Your task to perform on an android device: What time is it in Sydney? Image 0: 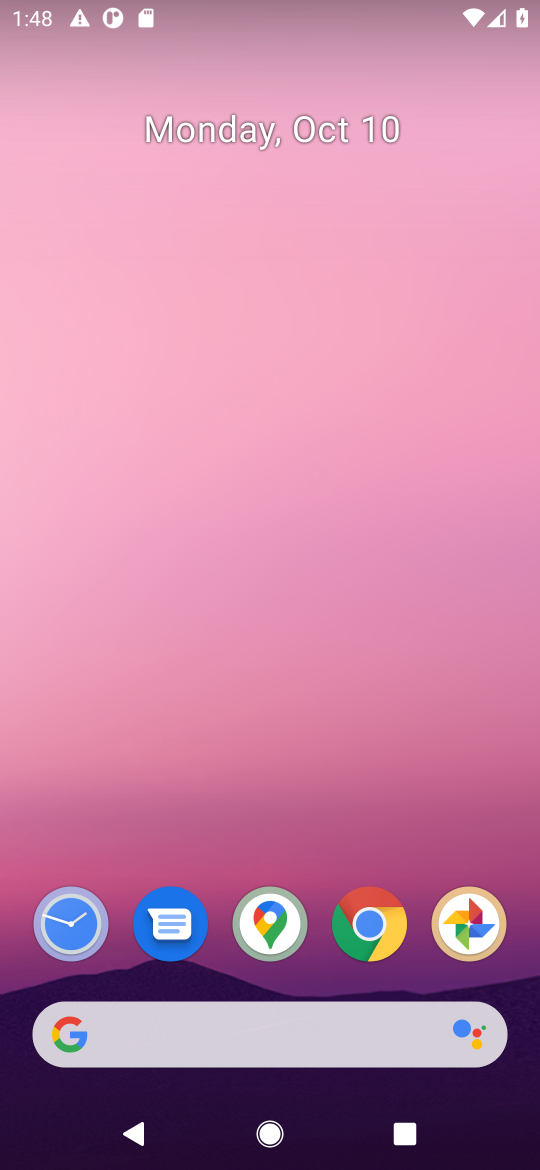
Step 0: drag from (302, 819) to (411, 10)
Your task to perform on an android device: What time is it in Sydney? Image 1: 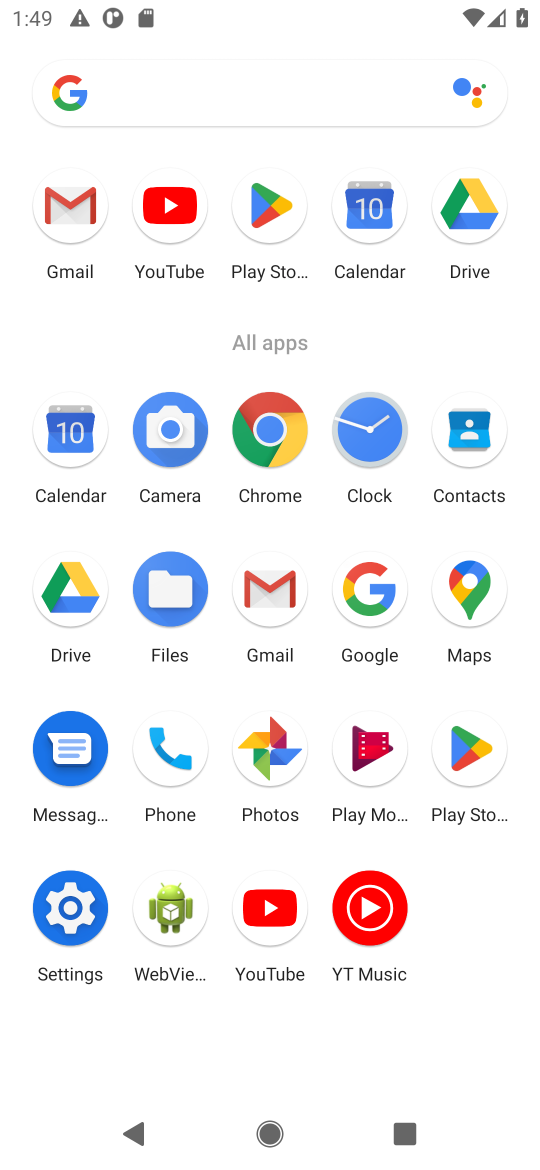
Step 1: click (392, 428)
Your task to perform on an android device: What time is it in Sydney? Image 2: 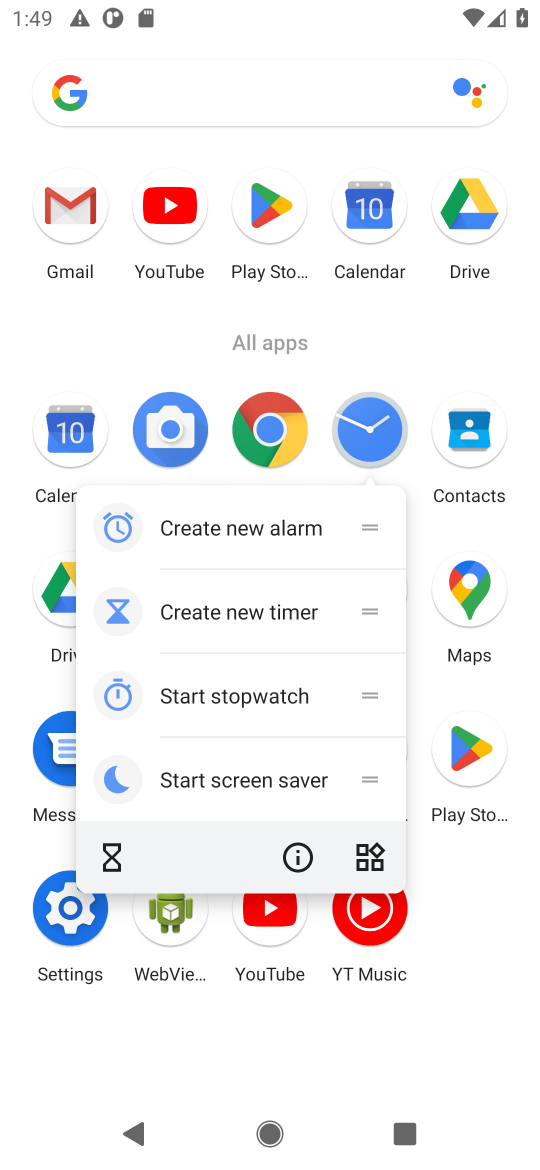
Step 2: click (272, 438)
Your task to perform on an android device: What time is it in Sydney? Image 3: 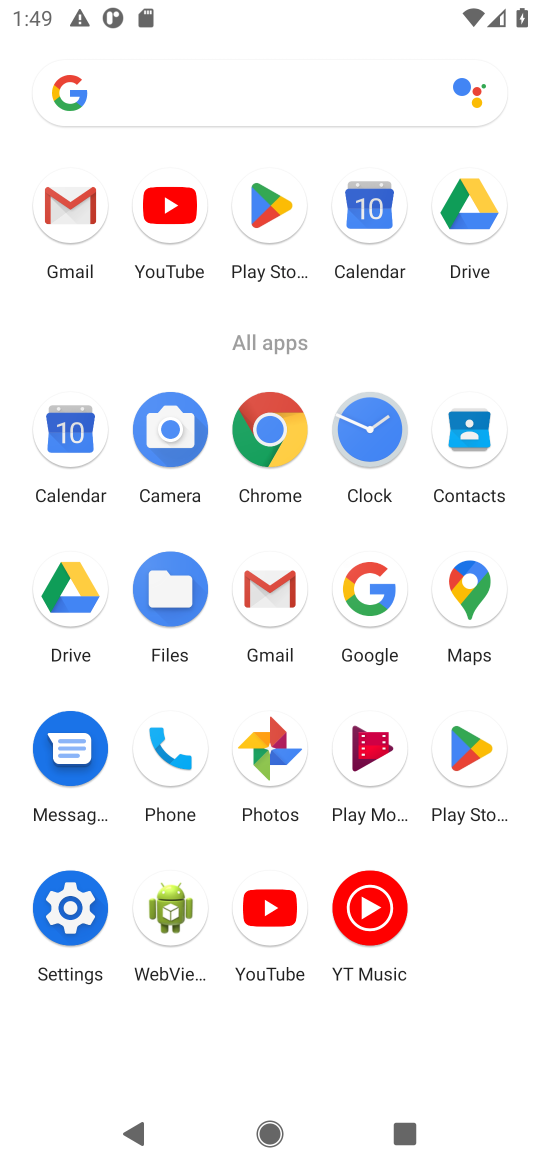
Step 3: click (272, 438)
Your task to perform on an android device: What time is it in Sydney? Image 4: 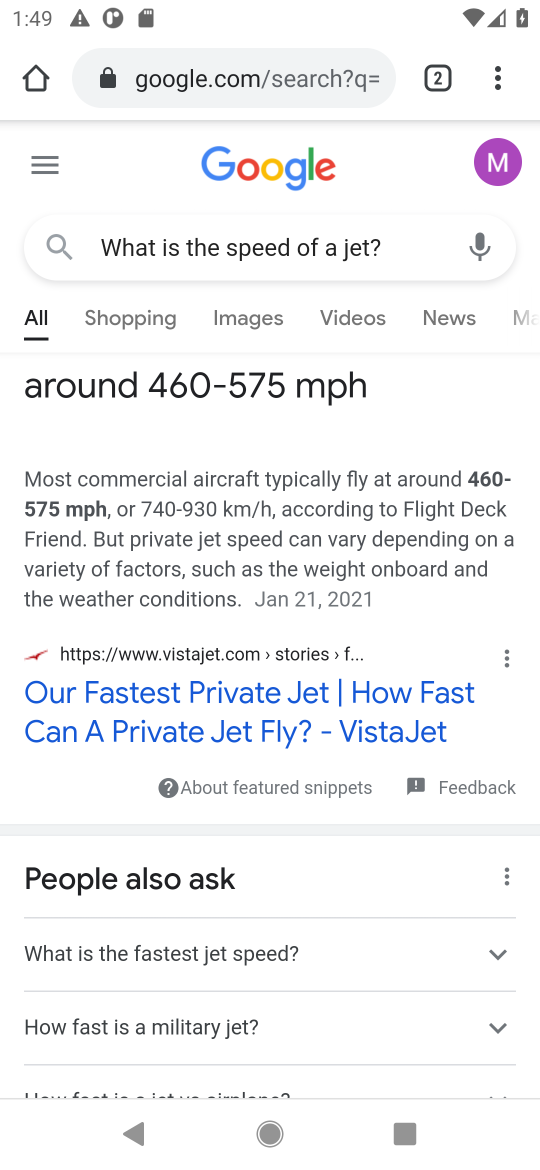
Step 4: click (177, 81)
Your task to perform on an android device: What time is it in Sydney? Image 5: 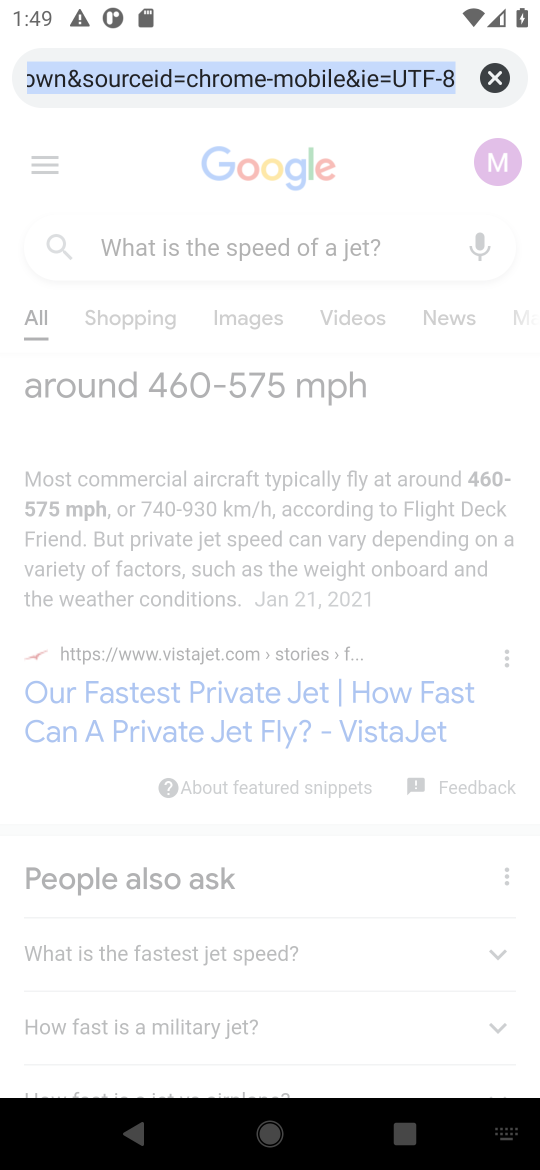
Step 5: click (485, 62)
Your task to perform on an android device: What time is it in Sydney? Image 6: 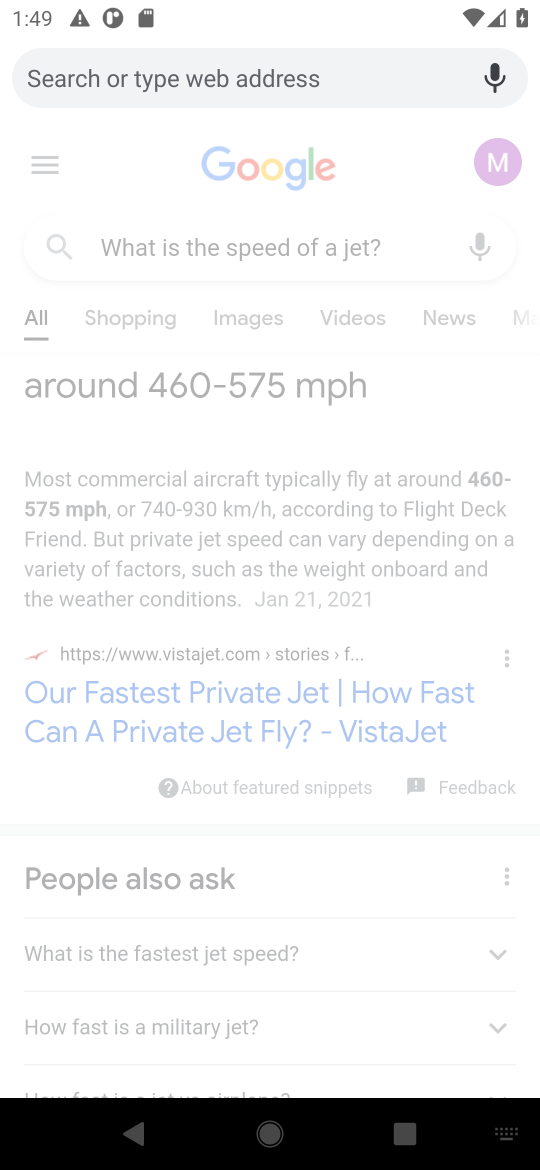
Step 6: type "What time is it in Sydney?"
Your task to perform on an android device: What time is it in Sydney? Image 7: 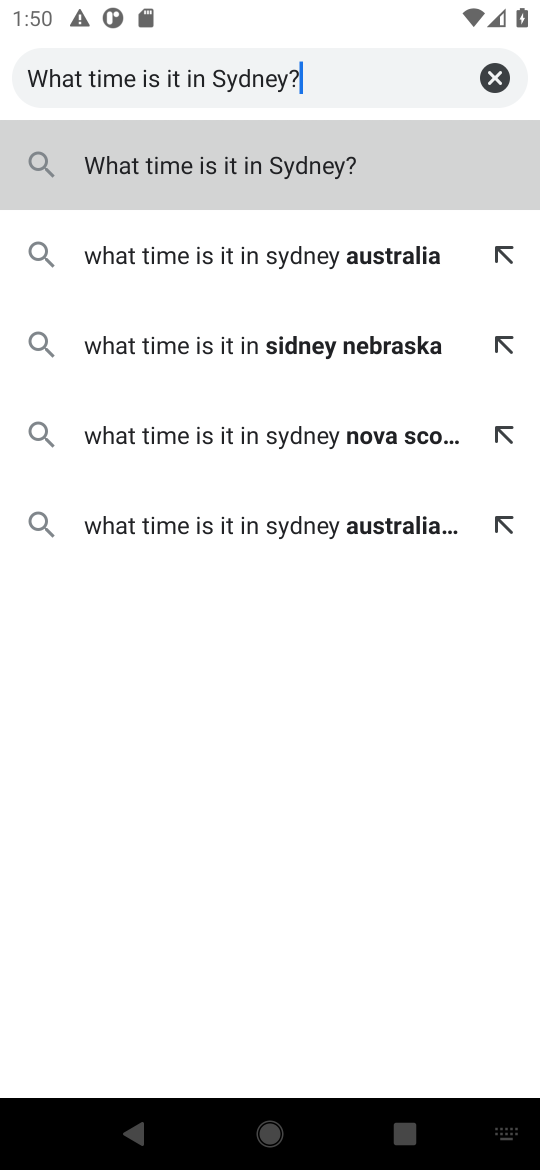
Step 7: click (281, 155)
Your task to perform on an android device: What time is it in Sydney? Image 8: 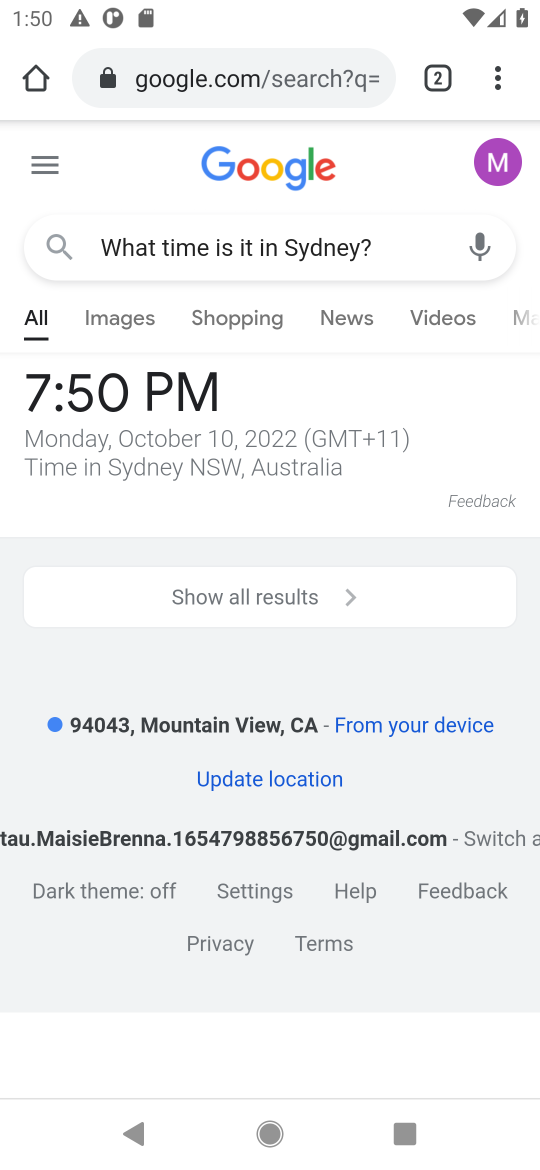
Step 8: task complete